Your task to perform on an android device: turn off sleep mode Image 0: 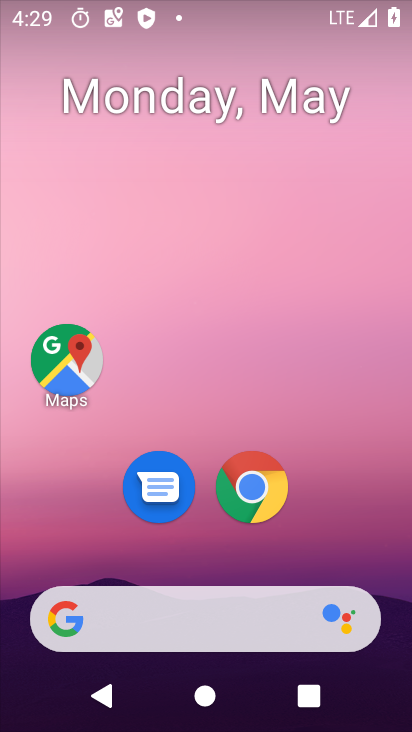
Step 0: drag from (326, 593) to (299, 15)
Your task to perform on an android device: turn off sleep mode Image 1: 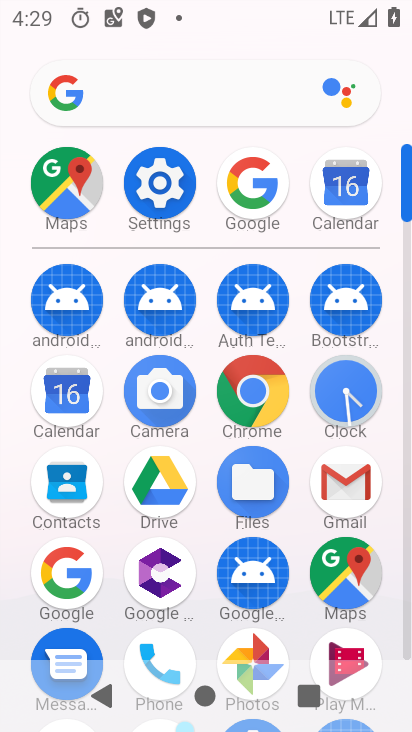
Step 1: click (166, 184)
Your task to perform on an android device: turn off sleep mode Image 2: 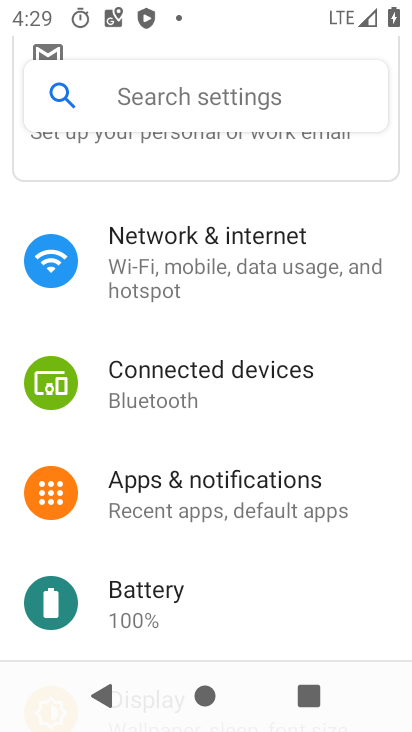
Step 2: drag from (197, 577) to (211, 268)
Your task to perform on an android device: turn off sleep mode Image 3: 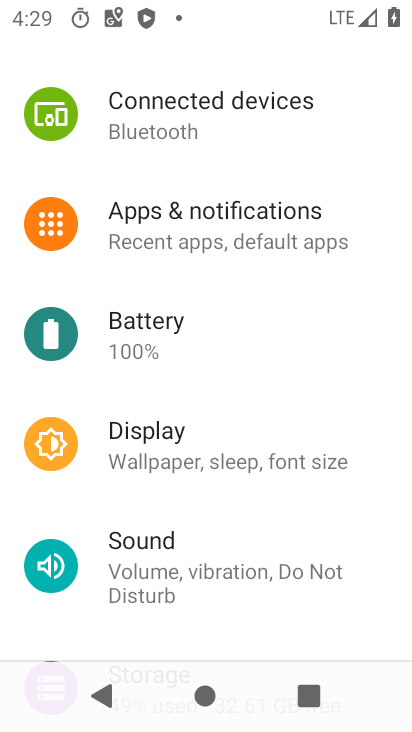
Step 3: click (168, 443)
Your task to perform on an android device: turn off sleep mode Image 4: 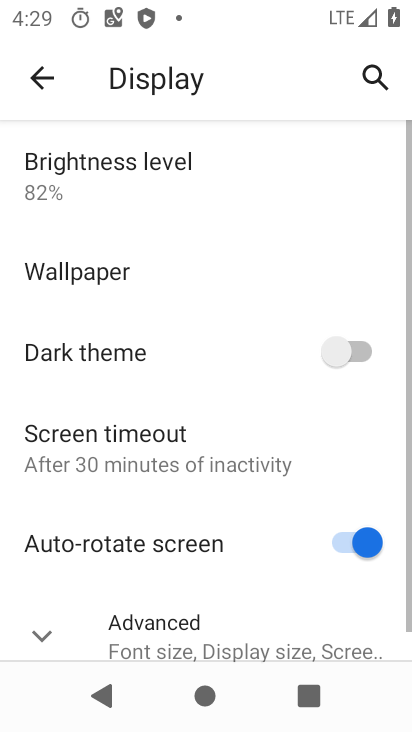
Step 4: drag from (102, 547) to (113, 222)
Your task to perform on an android device: turn off sleep mode Image 5: 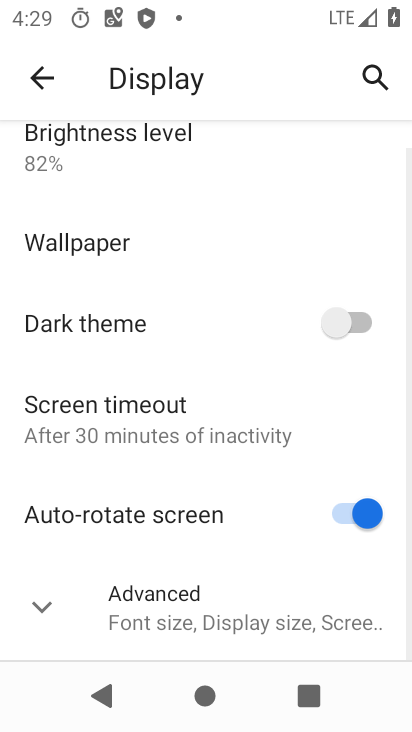
Step 5: click (41, 616)
Your task to perform on an android device: turn off sleep mode Image 6: 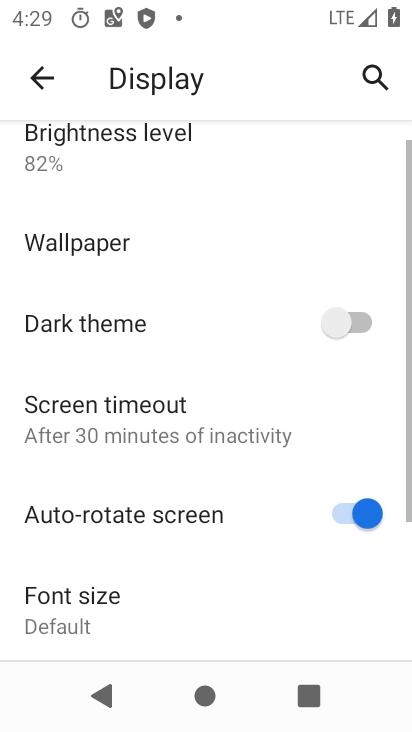
Step 6: task complete